Your task to perform on an android device: Go to sound settings Image 0: 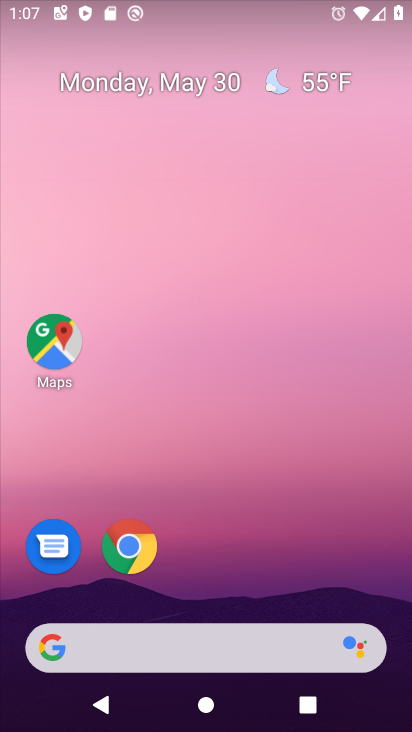
Step 0: press home button
Your task to perform on an android device: Go to sound settings Image 1: 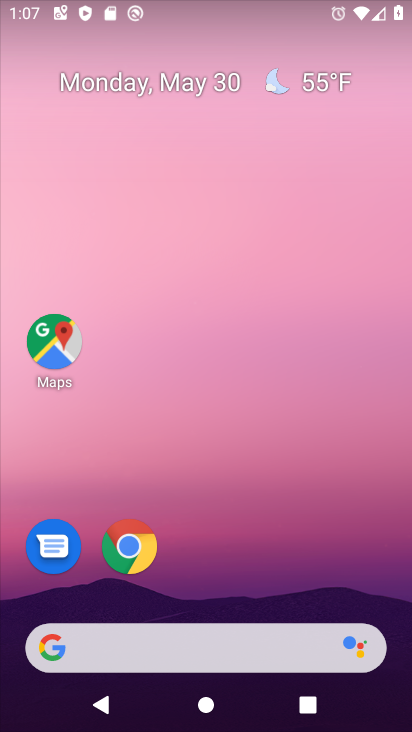
Step 1: drag from (244, 597) to (202, 120)
Your task to perform on an android device: Go to sound settings Image 2: 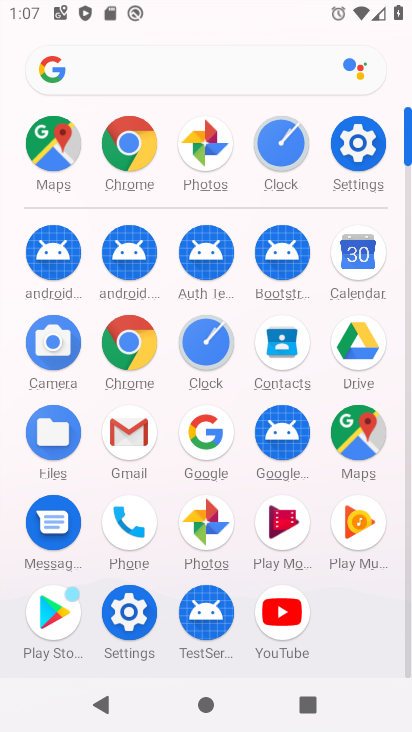
Step 2: click (352, 152)
Your task to perform on an android device: Go to sound settings Image 3: 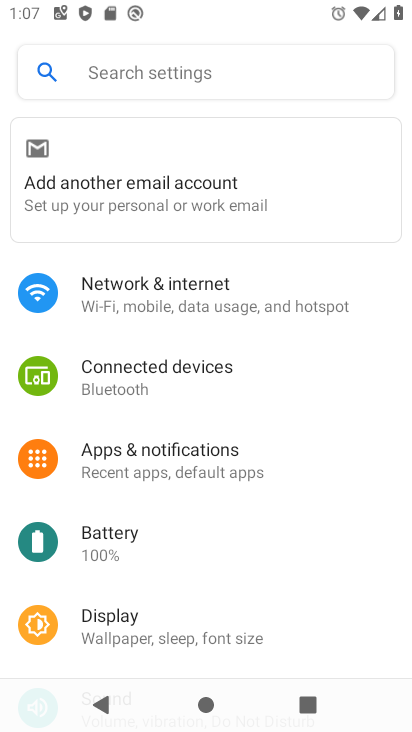
Step 3: drag from (233, 562) to (206, 207)
Your task to perform on an android device: Go to sound settings Image 4: 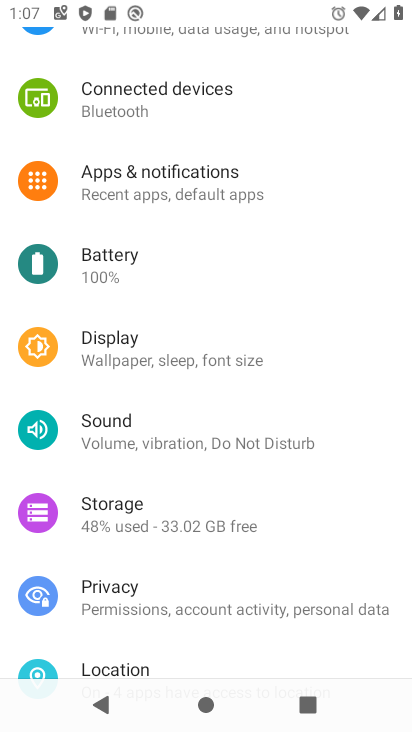
Step 4: click (107, 431)
Your task to perform on an android device: Go to sound settings Image 5: 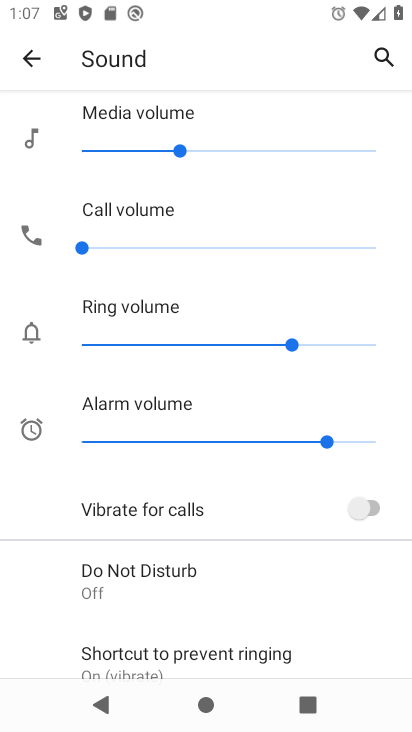
Step 5: task complete